Your task to perform on an android device: Open the map Image 0: 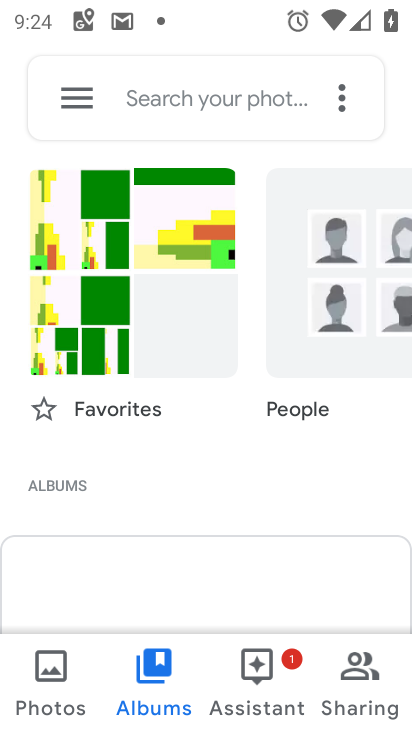
Step 0: press home button
Your task to perform on an android device: Open the map Image 1: 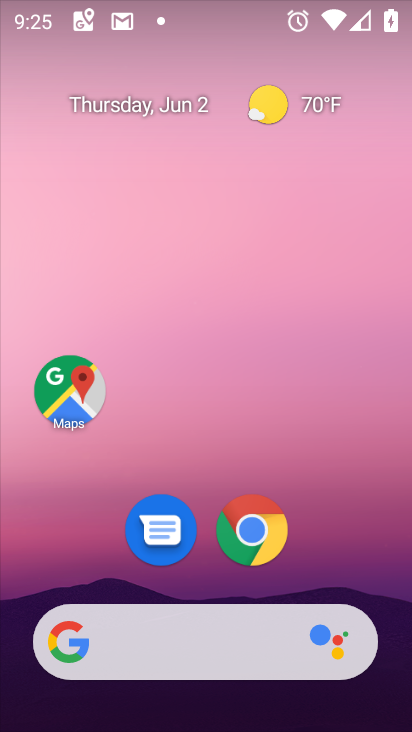
Step 1: click (67, 401)
Your task to perform on an android device: Open the map Image 2: 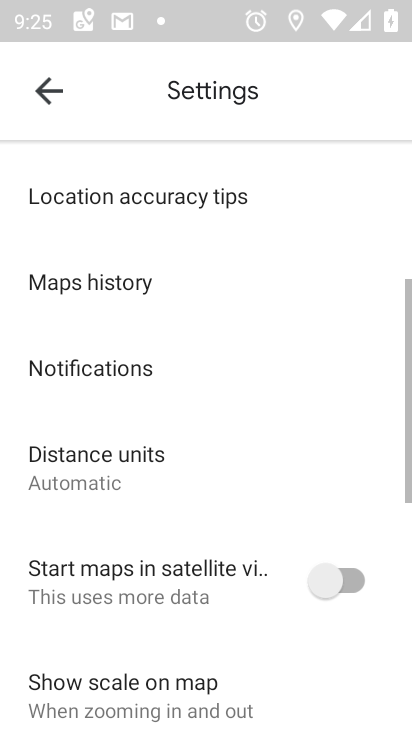
Step 2: click (58, 83)
Your task to perform on an android device: Open the map Image 3: 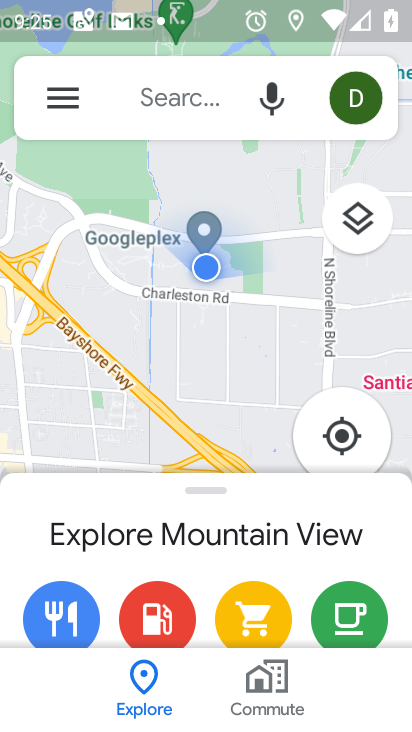
Step 3: task complete